Your task to perform on an android device: Go to Google Image 0: 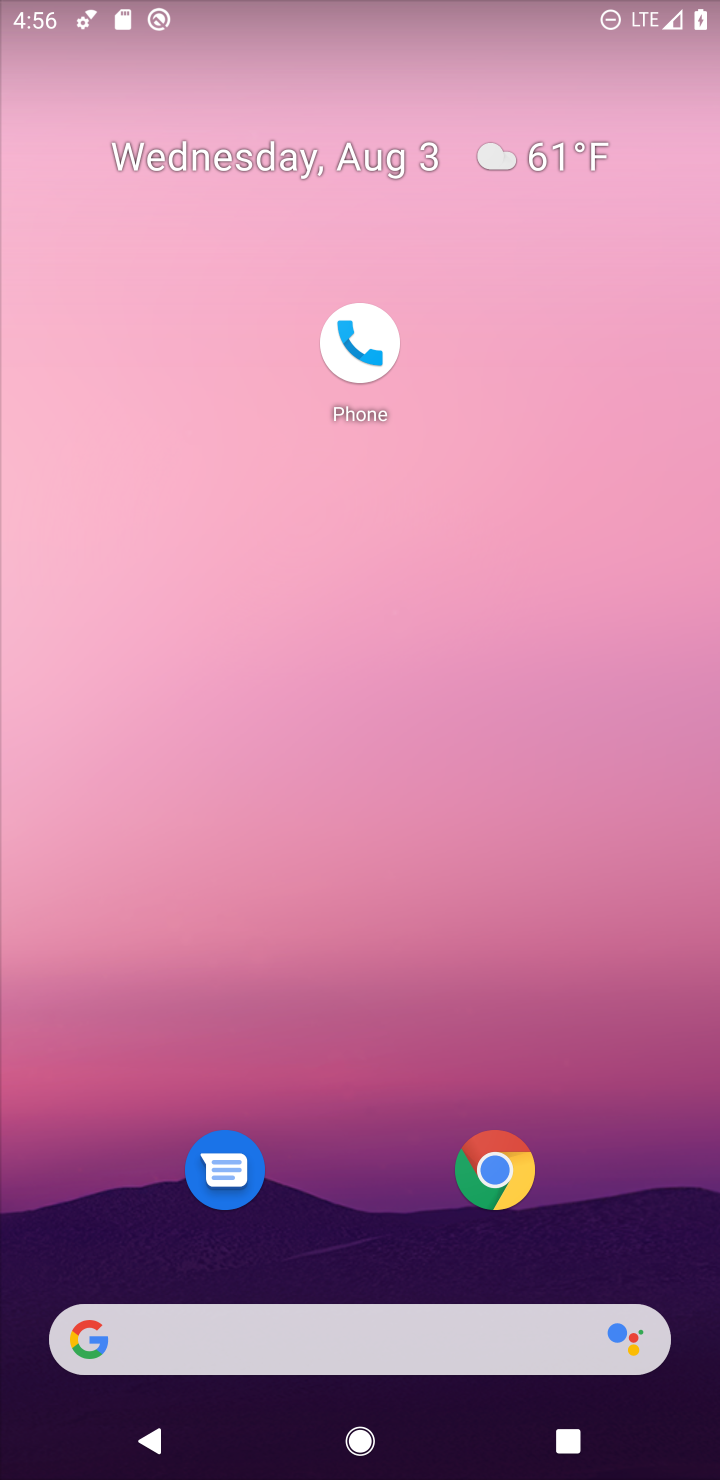
Step 0: click (452, 1344)
Your task to perform on an android device: Go to Google Image 1: 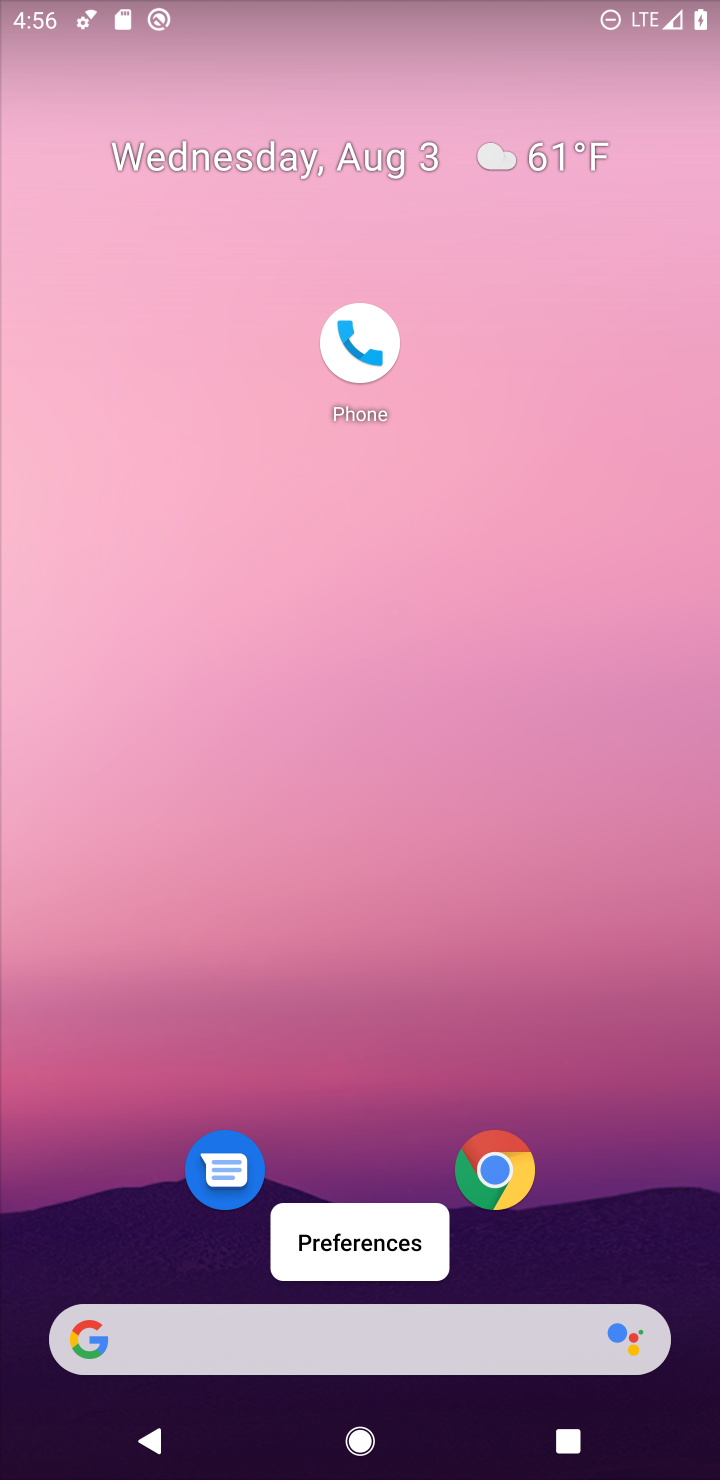
Step 1: click (439, 1344)
Your task to perform on an android device: Go to Google Image 2: 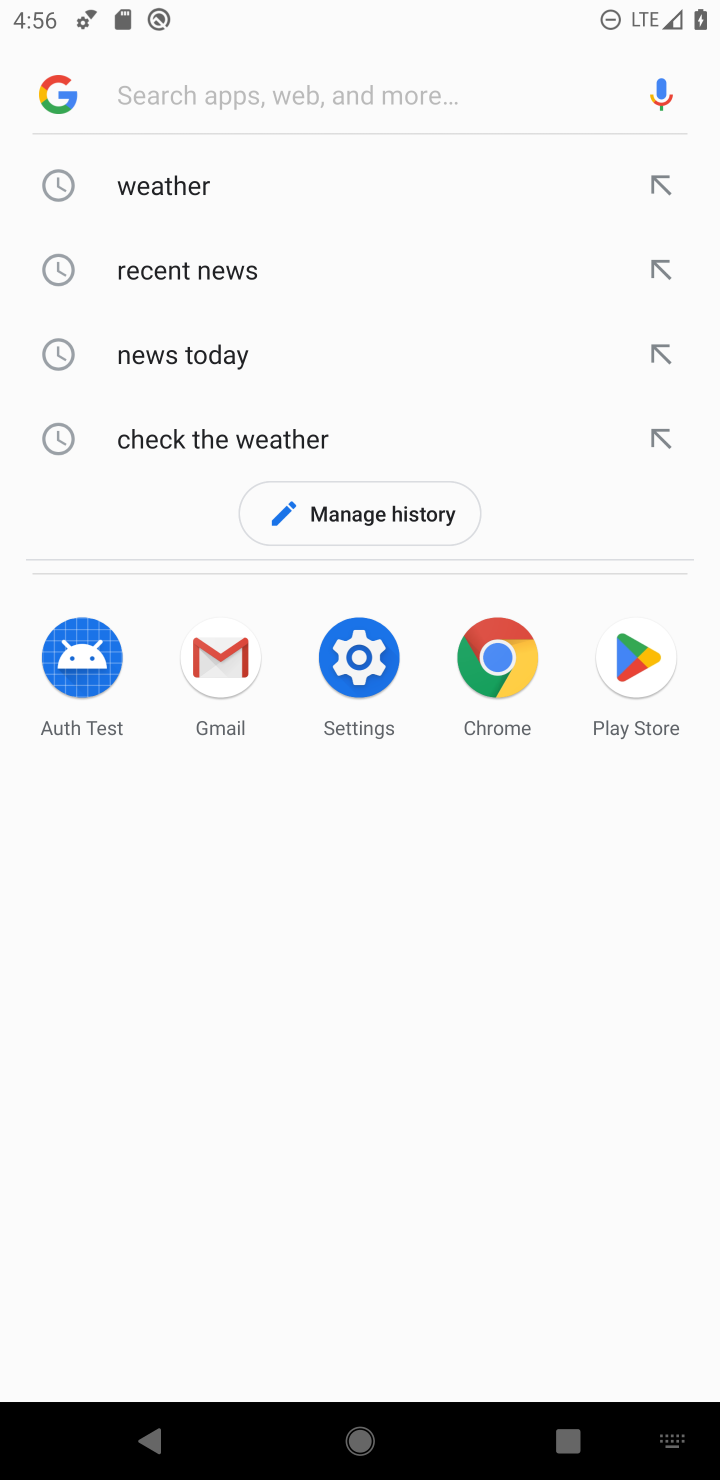
Step 2: task complete